Your task to perform on an android device: Clear the cart on ebay.com. Add "logitech g903" to the cart on ebay.com Image 0: 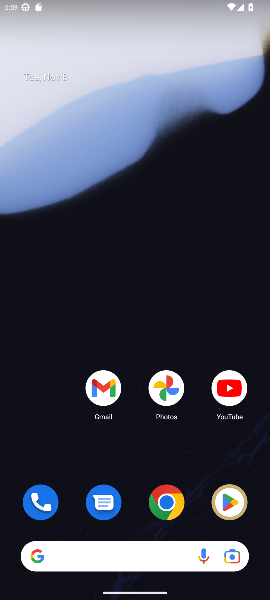
Step 0: drag from (161, 495) to (137, 267)
Your task to perform on an android device: Clear the cart on ebay.com. Add "logitech g903" to the cart on ebay.com Image 1: 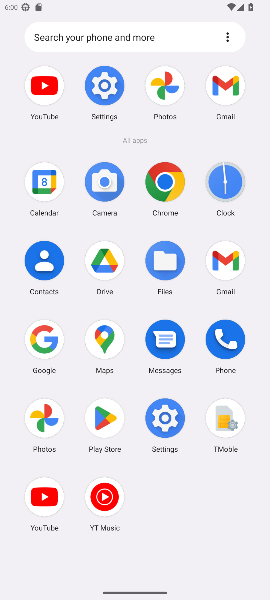
Step 1: click (38, 335)
Your task to perform on an android device: Clear the cart on ebay.com. Add "logitech g903" to the cart on ebay.com Image 2: 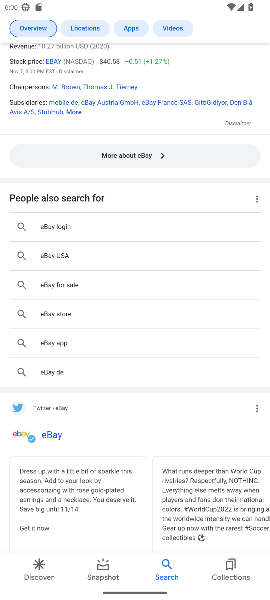
Step 2: drag from (91, 88) to (102, 463)
Your task to perform on an android device: Clear the cart on ebay.com. Add "logitech g903" to the cart on ebay.com Image 3: 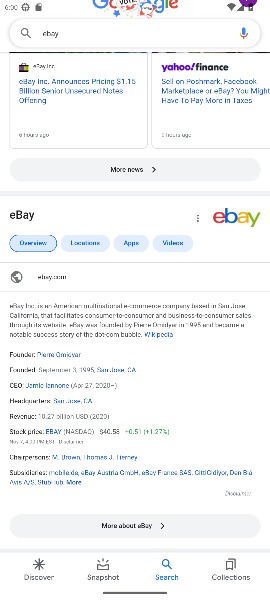
Step 3: drag from (80, 150) to (133, 427)
Your task to perform on an android device: Clear the cart on ebay.com. Add "logitech g903" to the cart on ebay.com Image 4: 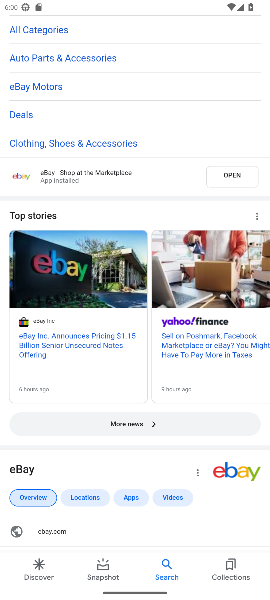
Step 4: drag from (140, 395) to (118, 260)
Your task to perform on an android device: Clear the cart on ebay.com. Add "logitech g903" to the cart on ebay.com Image 5: 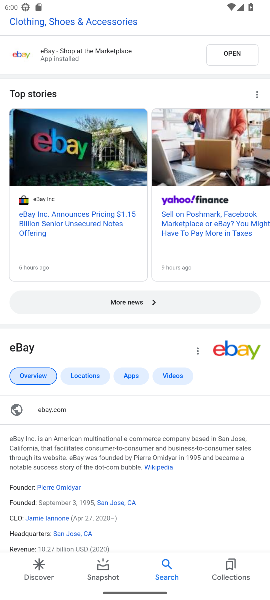
Step 5: drag from (135, 345) to (51, 374)
Your task to perform on an android device: Clear the cart on ebay.com. Add "logitech g903" to the cart on ebay.com Image 6: 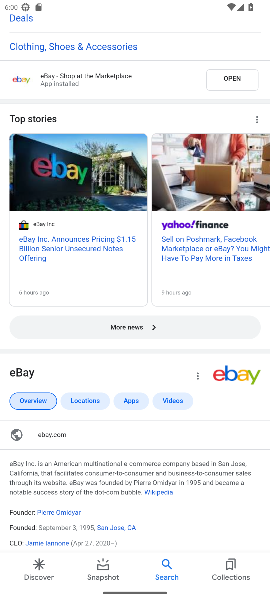
Step 6: click (57, 26)
Your task to perform on an android device: Clear the cart on ebay.com. Add "logitech g903" to the cart on ebay.com Image 7: 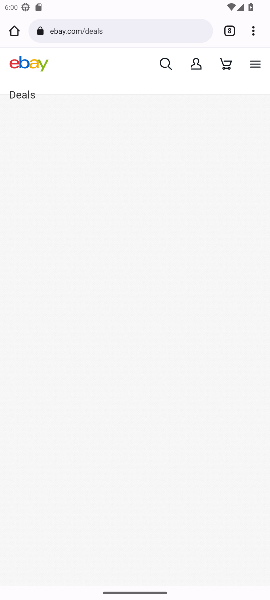
Step 7: click (128, 467)
Your task to perform on an android device: Clear the cart on ebay.com. Add "logitech g903" to the cart on ebay.com Image 8: 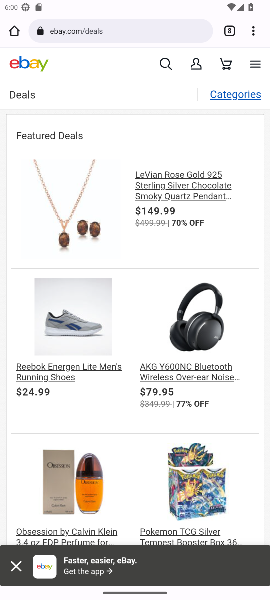
Step 8: click (107, 27)
Your task to perform on an android device: Clear the cart on ebay.com. Add "logitech g903" to the cart on ebay.com Image 9: 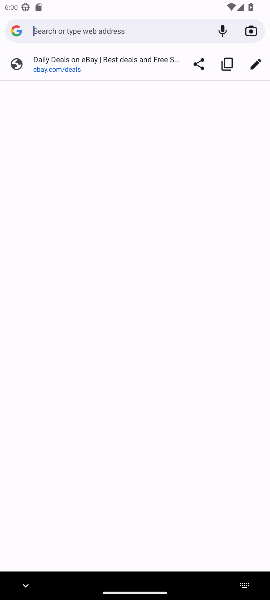
Step 9: click (52, 25)
Your task to perform on an android device: Clear the cart on ebay.com. Add "logitech g903" to the cart on ebay.com Image 10: 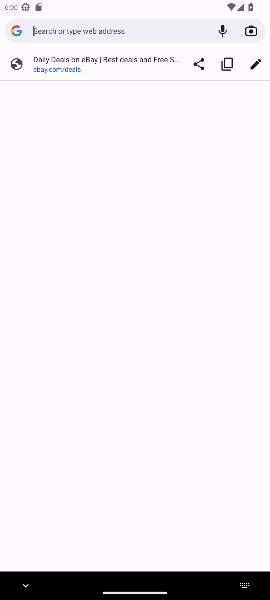
Step 10: type "logitech g903 "
Your task to perform on an android device: Clear the cart on ebay.com. Add "logitech g903" to the cart on ebay.com Image 11: 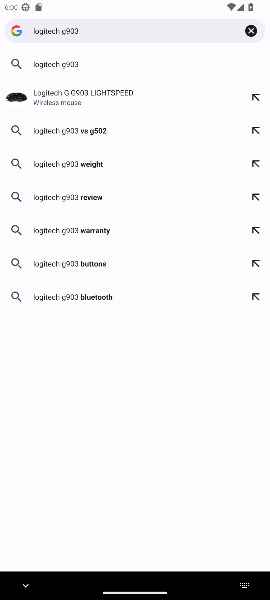
Step 11: click (68, 62)
Your task to perform on an android device: Clear the cart on ebay.com. Add "logitech g903" to the cart on ebay.com Image 12: 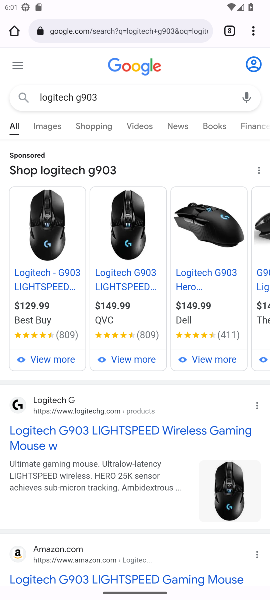
Step 12: drag from (143, 461) to (132, 234)
Your task to perform on an android device: Clear the cart on ebay.com. Add "logitech g903" to the cart on ebay.com Image 13: 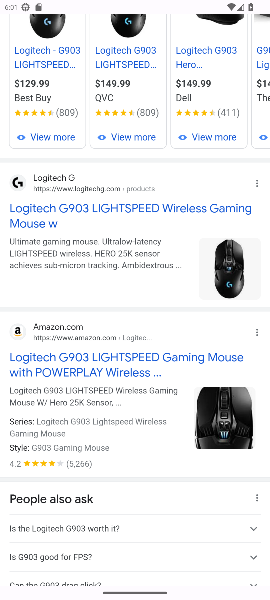
Step 13: drag from (127, 183) to (152, 550)
Your task to perform on an android device: Clear the cart on ebay.com. Add "logitech g903" to the cart on ebay.com Image 14: 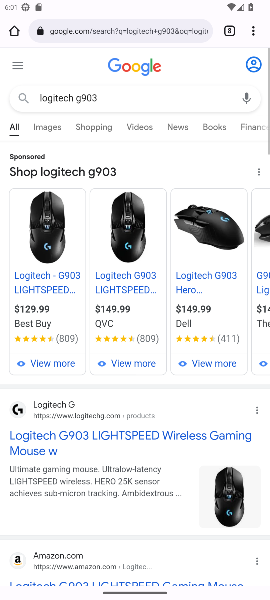
Step 14: drag from (166, 202) to (164, 450)
Your task to perform on an android device: Clear the cart on ebay.com. Add "logitech g903" to the cart on ebay.com Image 15: 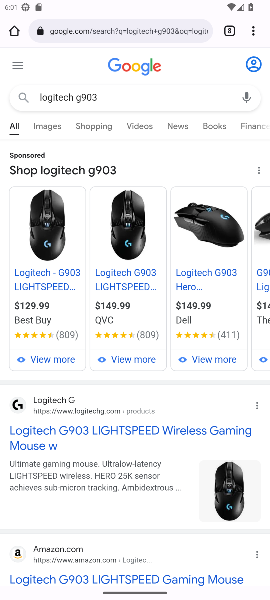
Step 15: click (101, 90)
Your task to perform on an android device: Clear the cart on ebay.com. Add "logitech g903" to the cart on ebay.com Image 16: 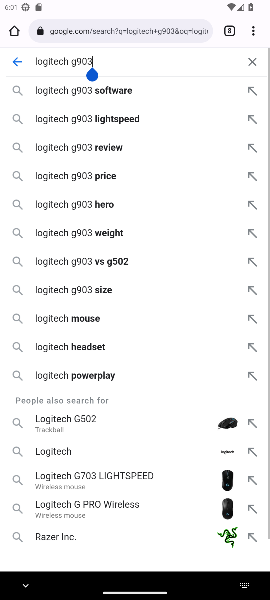
Step 16: click (248, 61)
Your task to perform on an android device: Clear the cart on ebay.com. Add "logitech g903" to the cart on ebay.com Image 17: 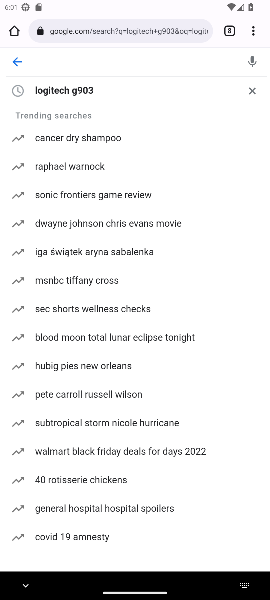
Step 17: click (100, 57)
Your task to perform on an android device: Clear the cart on ebay.com. Add "logitech g903" to the cart on ebay.com Image 18: 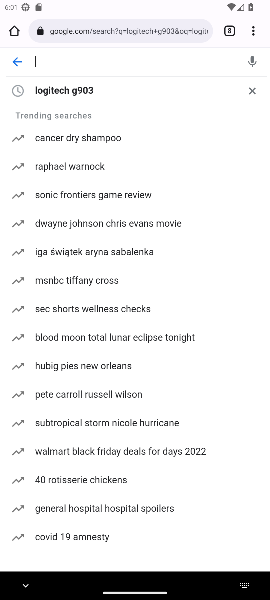
Step 18: type "ebay "
Your task to perform on an android device: Clear the cart on ebay.com. Add "logitech g903" to the cart on ebay.com Image 19: 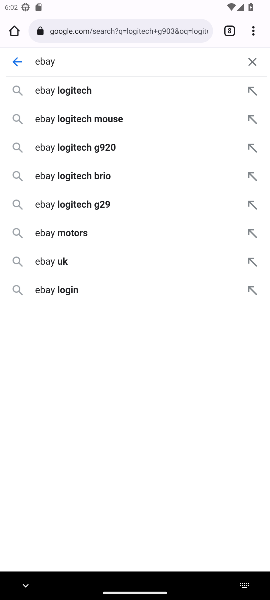
Step 19: click (72, 95)
Your task to perform on an android device: Clear the cart on ebay.com. Add "logitech g903" to the cart on ebay.com Image 20: 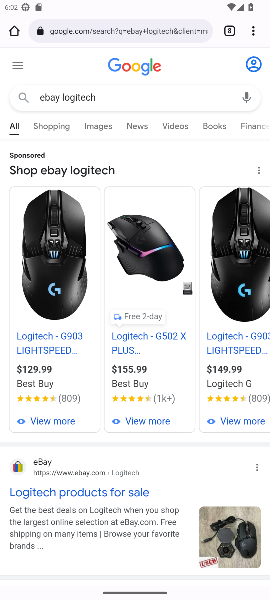
Step 20: click (16, 468)
Your task to perform on an android device: Clear the cart on ebay.com. Add "logitech g903" to the cart on ebay.com Image 21: 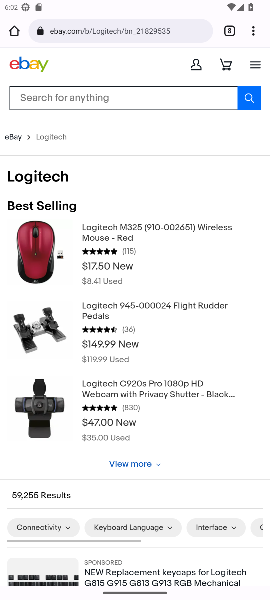
Step 21: click (125, 230)
Your task to perform on an android device: Clear the cart on ebay.com. Add "logitech g903" to the cart on ebay.com Image 22: 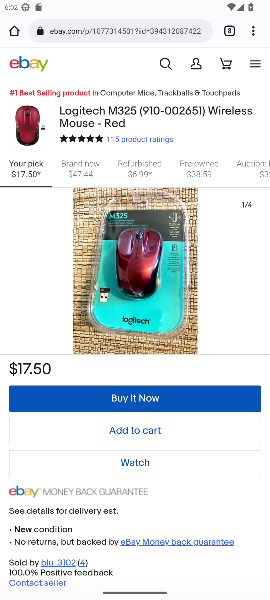
Step 22: click (134, 434)
Your task to perform on an android device: Clear the cart on ebay.com. Add "logitech g903" to the cart on ebay.com Image 23: 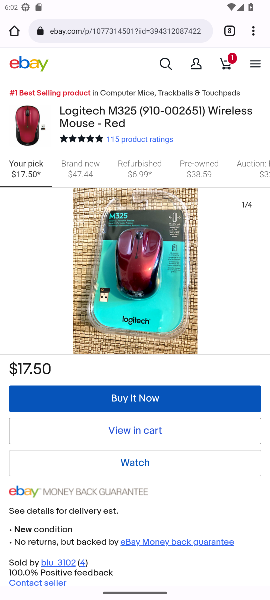
Step 23: task complete